Your task to perform on an android device: Go to Reddit.com Image 0: 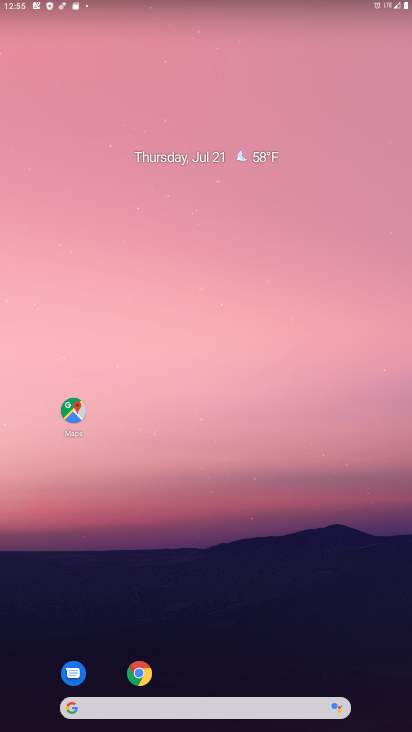
Step 0: drag from (202, 659) to (239, 290)
Your task to perform on an android device: Go to Reddit.com Image 1: 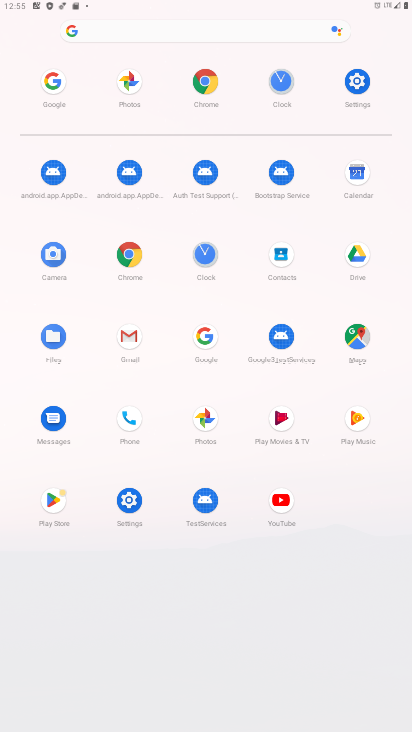
Step 1: click (205, 82)
Your task to perform on an android device: Go to Reddit.com Image 2: 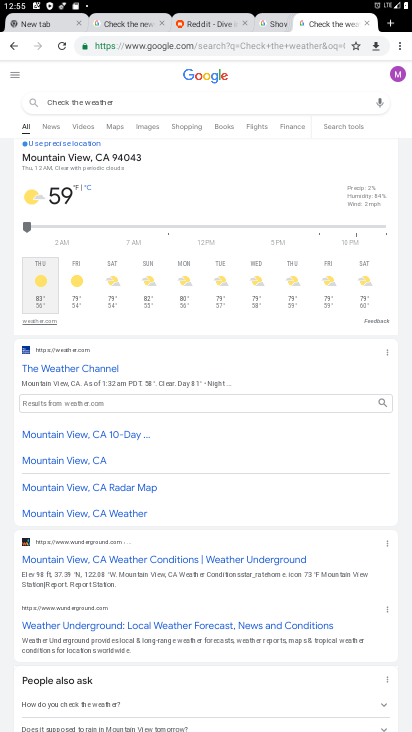
Step 2: click (391, 25)
Your task to perform on an android device: Go to Reddit.com Image 3: 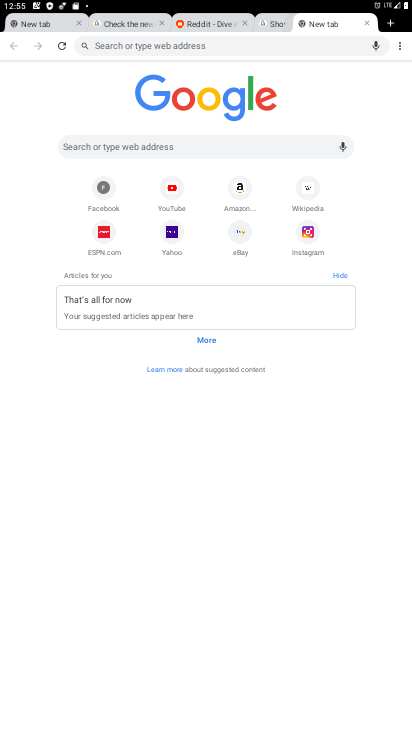
Step 3: click (139, 144)
Your task to perform on an android device: Go to Reddit.com Image 4: 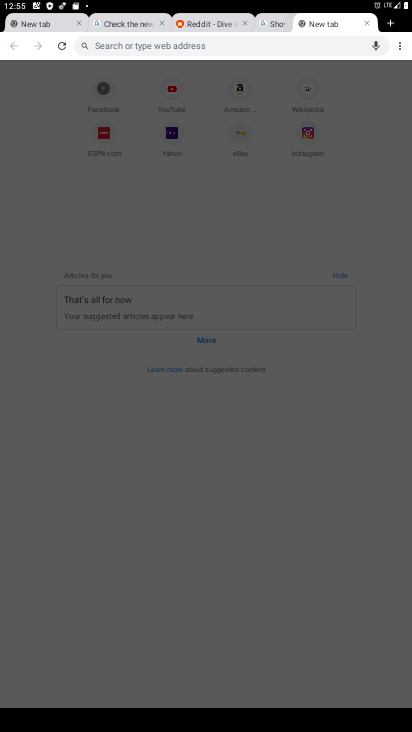
Step 4: type " Reddit.com "
Your task to perform on an android device: Go to Reddit.com Image 5: 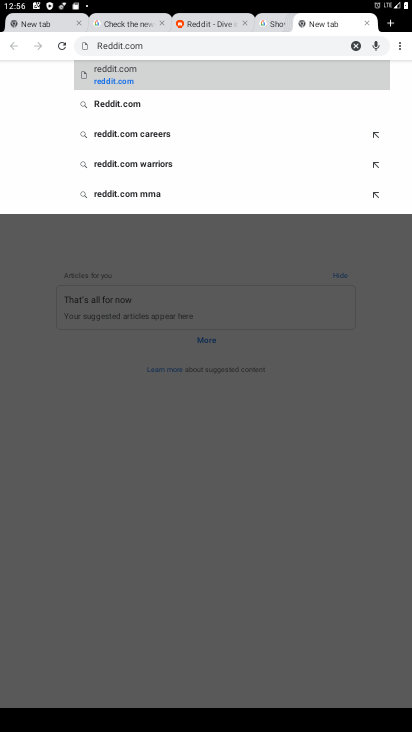
Step 5: click (150, 79)
Your task to perform on an android device: Go to Reddit.com Image 6: 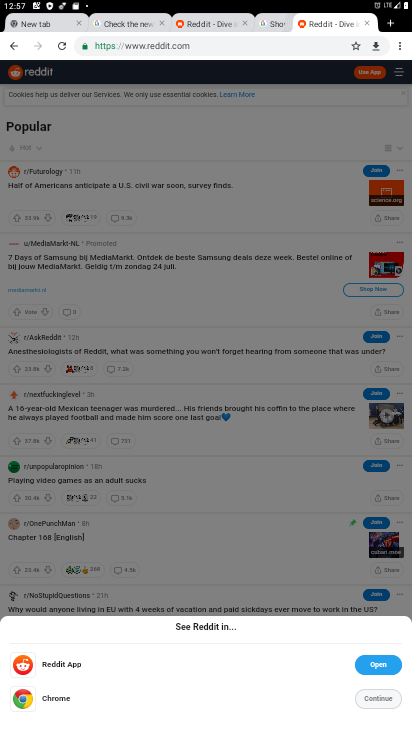
Step 6: task complete